Your task to perform on an android device: see creations saved in the google photos Image 0: 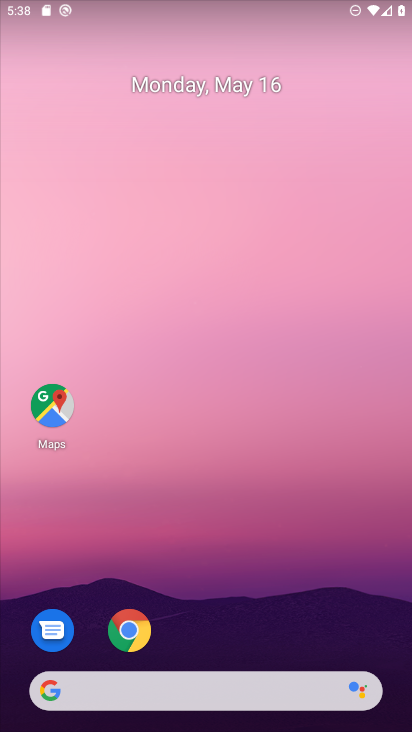
Step 0: press home button
Your task to perform on an android device: see creations saved in the google photos Image 1: 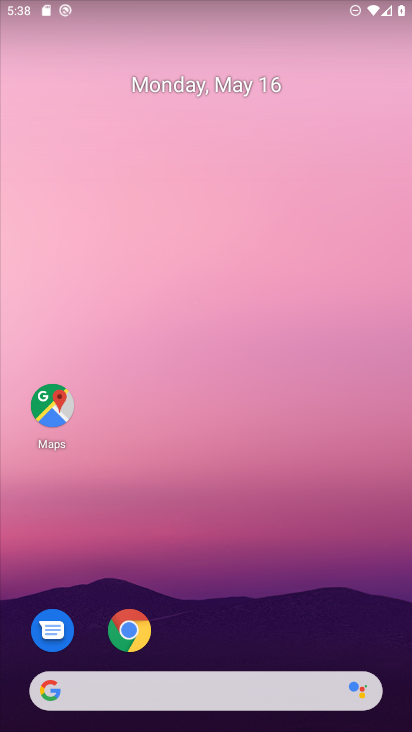
Step 1: drag from (272, 624) to (273, 31)
Your task to perform on an android device: see creations saved in the google photos Image 2: 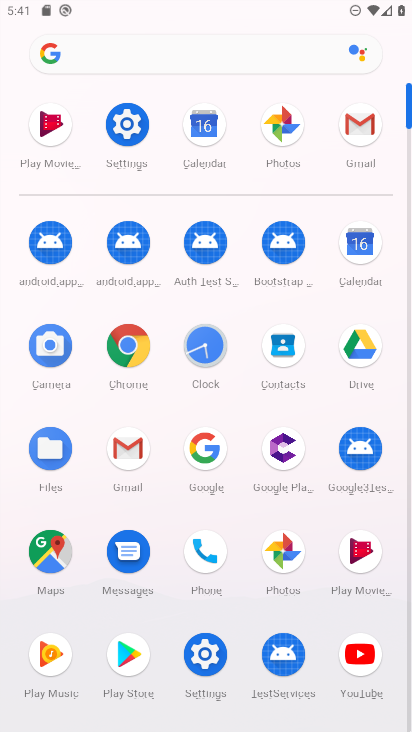
Step 2: click (267, 563)
Your task to perform on an android device: see creations saved in the google photos Image 3: 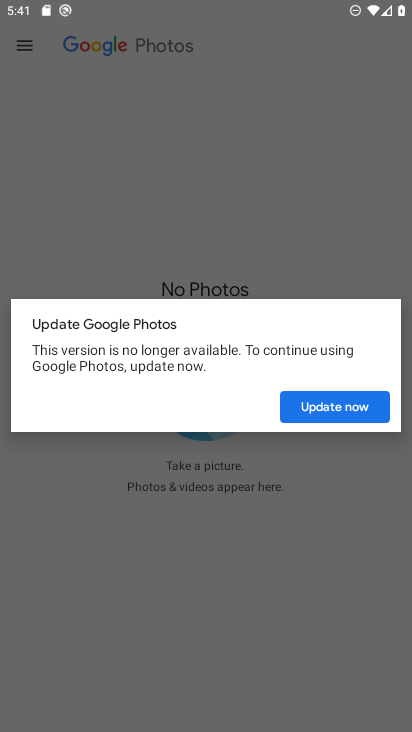
Step 3: click (300, 399)
Your task to perform on an android device: see creations saved in the google photos Image 4: 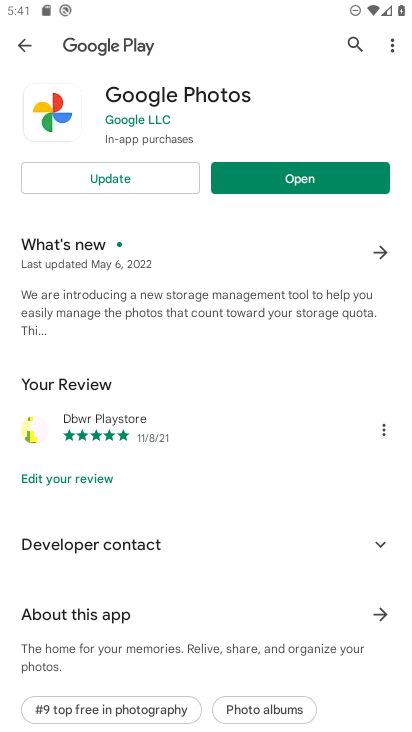
Step 4: click (169, 174)
Your task to perform on an android device: see creations saved in the google photos Image 5: 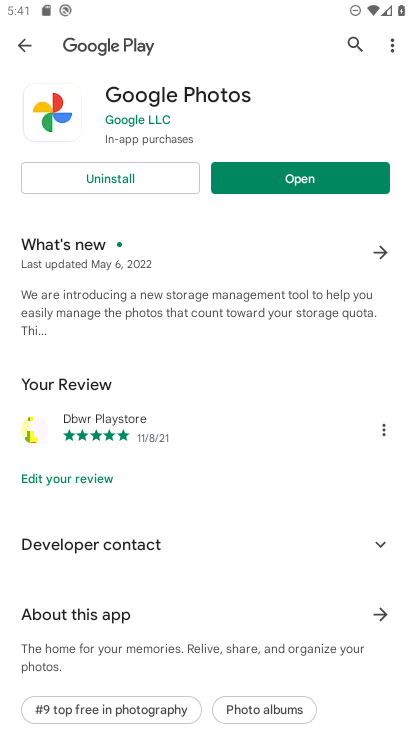
Step 5: click (319, 165)
Your task to perform on an android device: see creations saved in the google photos Image 6: 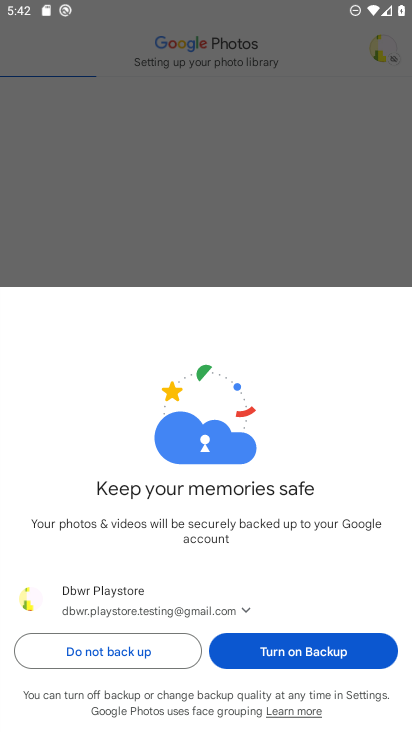
Step 6: click (365, 647)
Your task to perform on an android device: see creations saved in the google photos Image 7: 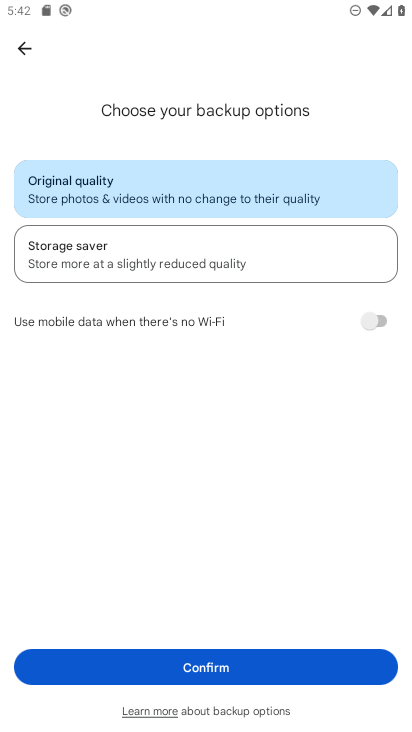
Step 7: click (29, 43)
Your task to perform on an android device: see creations saved in the google photos Image 8: 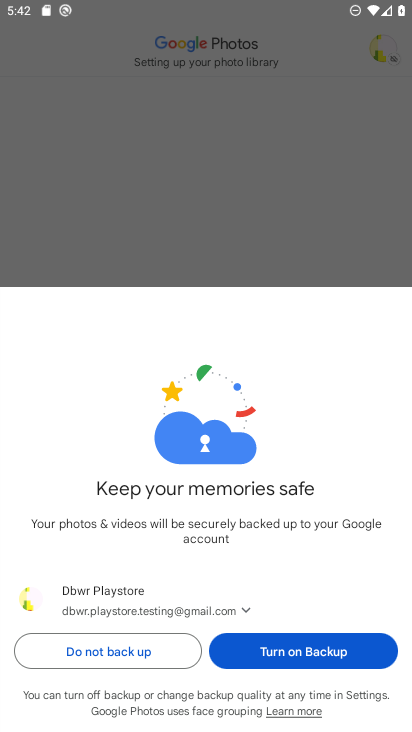
Step 8: click (345, 649)
Your task to perform on an android device: see creations saved in the google photos Image 9: 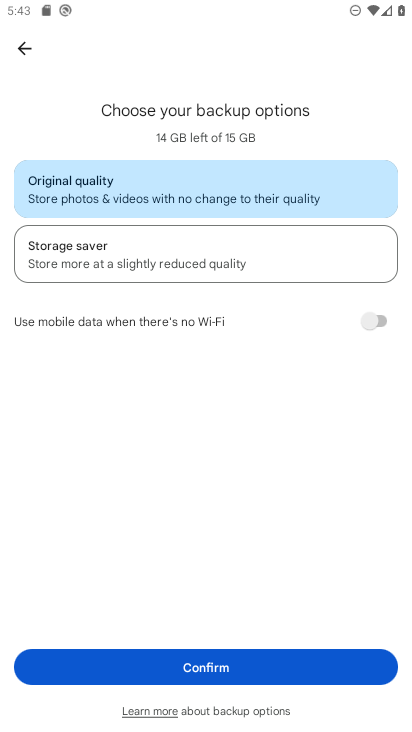
Step 9: click (344, 658)
Your task to perform on an android device: see creations saved in the google photos Image 10: 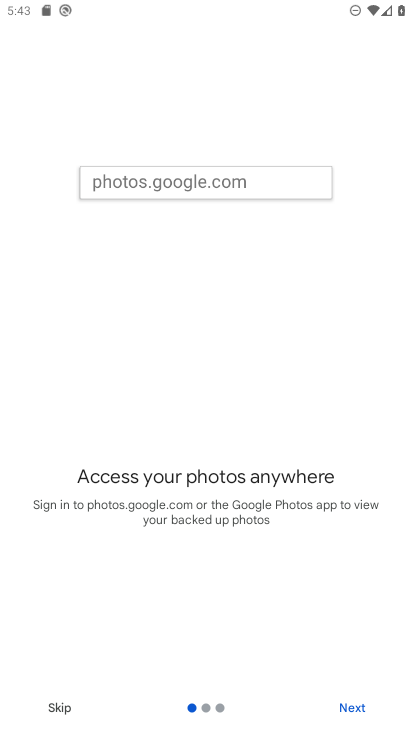
Step 10: click (360, 698)
Your task to perform on an android device: see creations saved in the google photos Image 11: 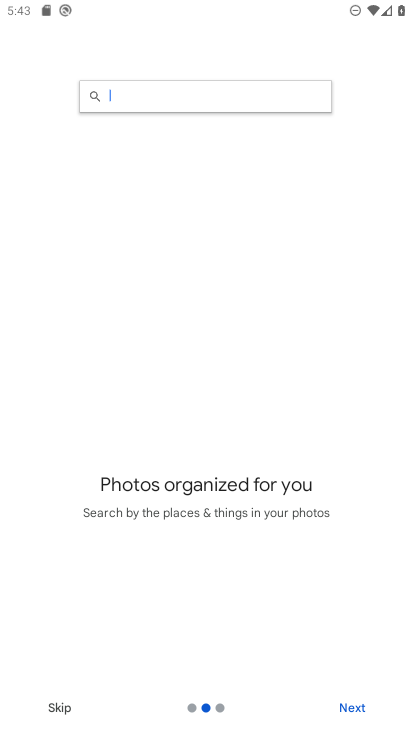
Step 11: click (360, 698)
Your task to perform on an android device: see creations saved in the google photos Image 12: 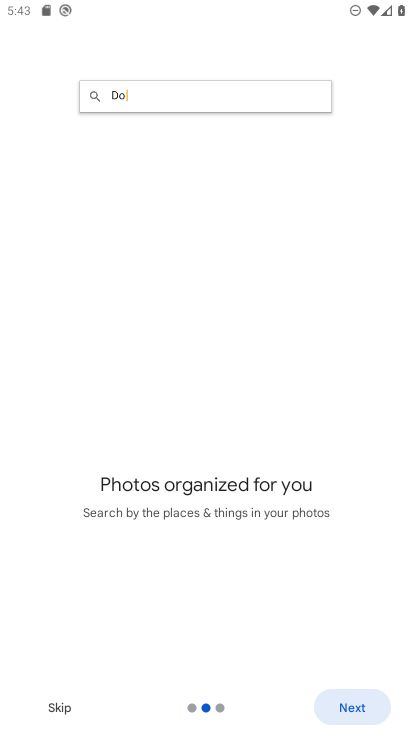
Step 12: click (360, 698)
Your task to perform on an android device: see creations saved in the google photos Image 13: 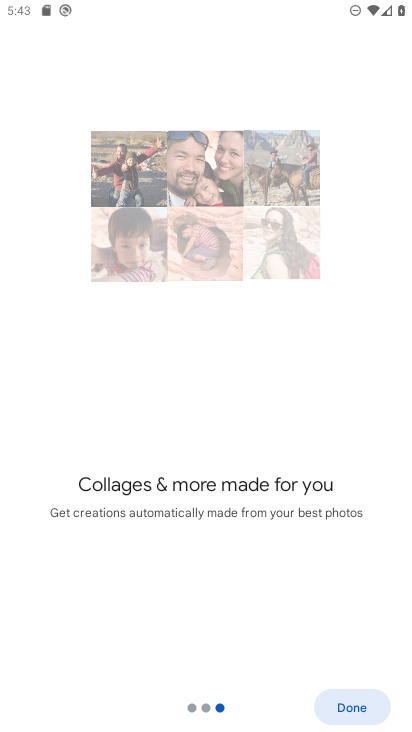
Step 13: click (360, 698)
Your task to perform on an android device: see creations saved in the google photos Image 14: 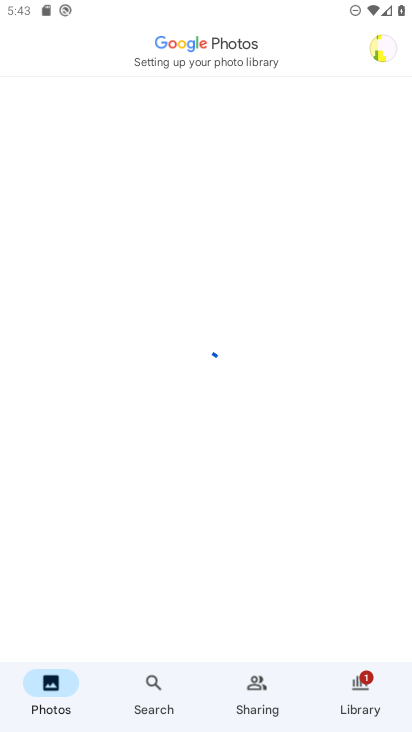
Step 14: click (157, 676)
Your task to perform on an android device: see creations saved in the google photos Image 15: 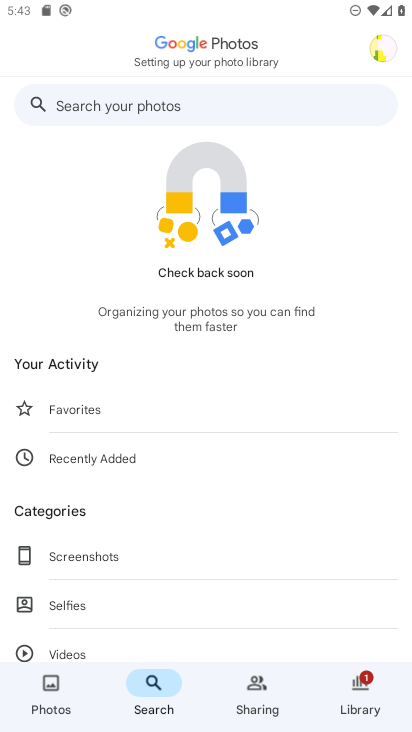
Step 15: drag from (265, 623) to (340, 442)
Your task to perform on an android device: see creations saved in the google photos Image 16: 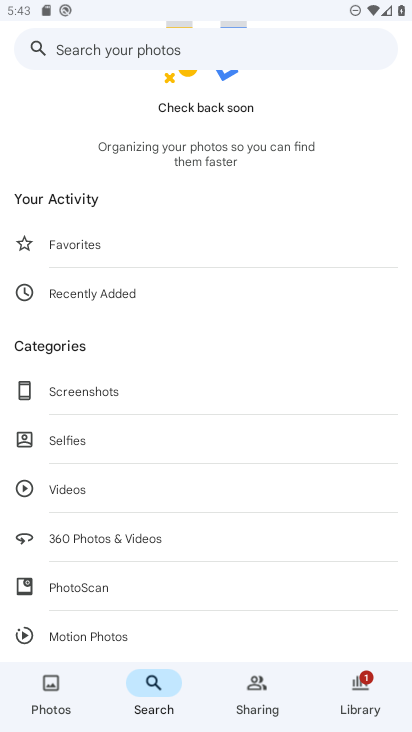
Step 16: drag from (167, 611) to (243, 294)
Your task to perform on an android device: see creations saved in the google photos Image 17: 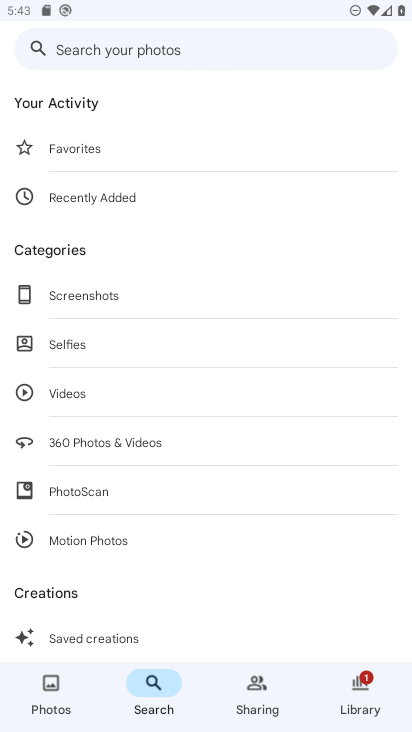
Step 17: click (162, 623)
Your task to perform on an android device: see creations saved in the google photos Image 18: 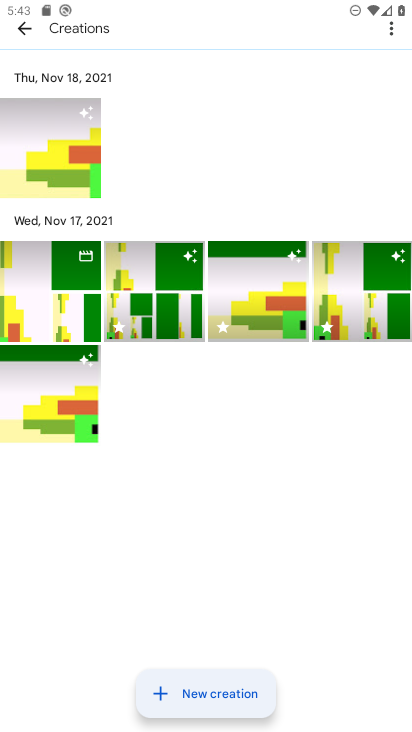
Step 18: task complete